Your task to perform on an android device: Open Chrome and go to the settings page Image 0: 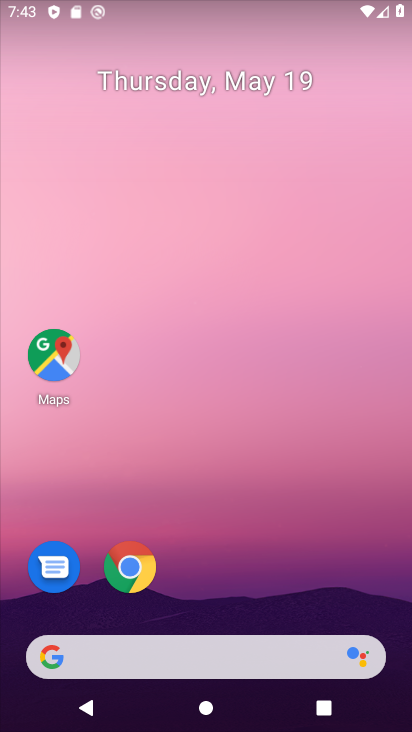
Step 0: click (134, 560)
Your task to perform on an android device: Open Chrome and go to the settings page Image 1: 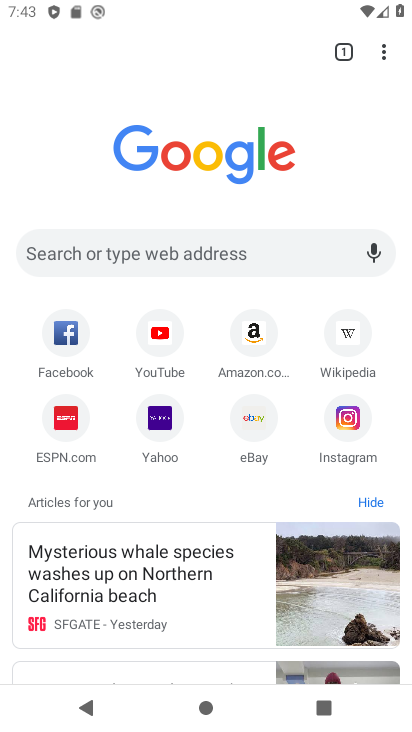
Step 1: click (381, 55)
Your task to perform on an android device: Open Chrome and go to the settings page Image 2: 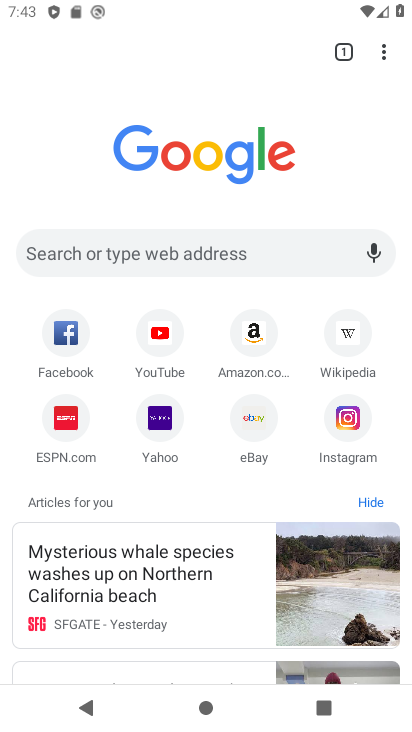
Step 2: task complete